Your task to perform on an android device: Show me popular videos on Youtube Image 0: 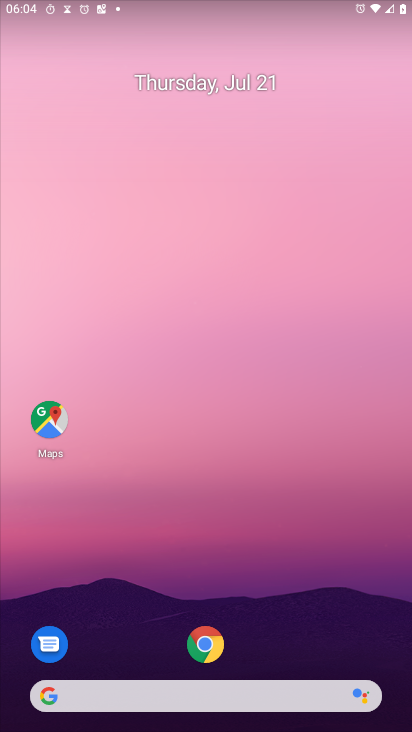
Step 0: press home button
Your task to perform on an android device: Show me popular videos on Youtube Image 1: 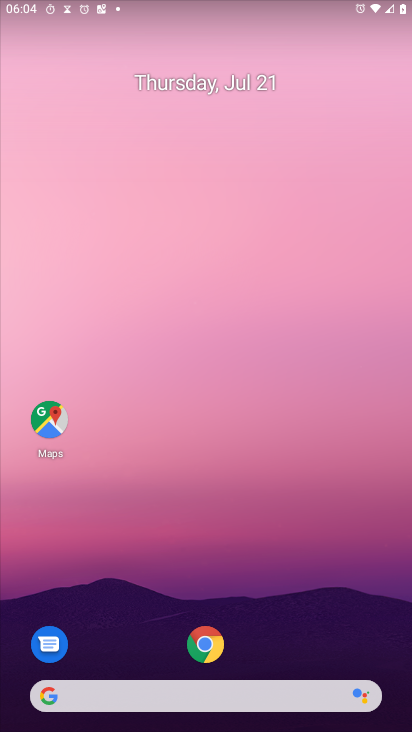
Step 1: drag from (296, 559) to (301, 116)
Your task to perform on an android device: Show me popular videos on Youtube Image 2: 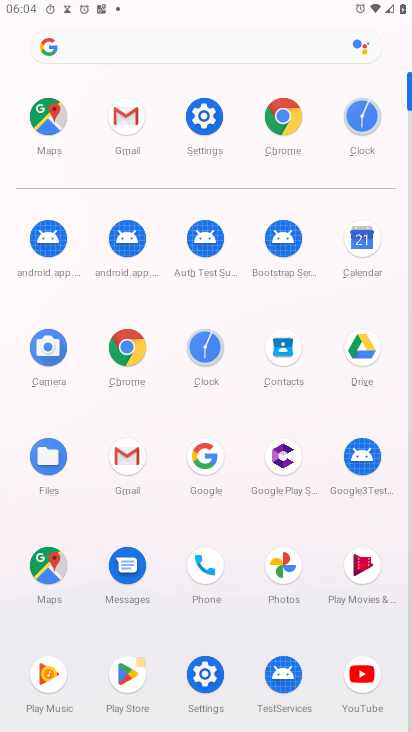
Step 2: click (369, 677)
Your task to perform on an android device: Show me popular videos on Youtube Image 3: 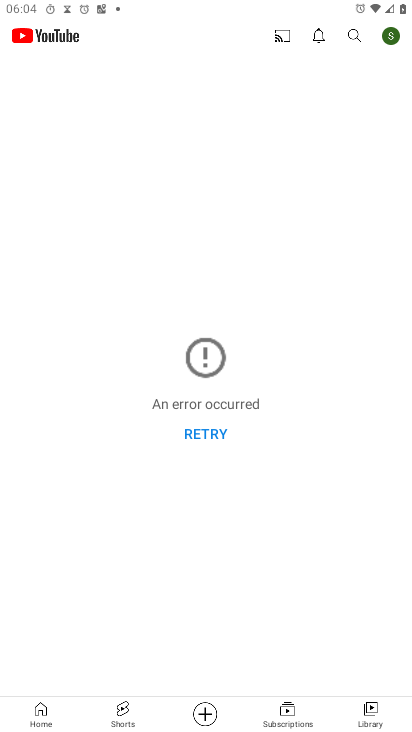
Step 3: click (195, 435)
Your task to perform on an android device: Show me popular videos on Youtube Image 4: 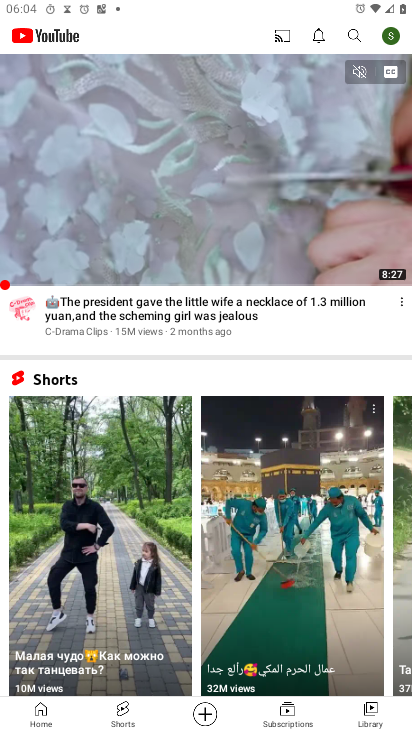
Step 4: drag from (224, 338) to (138, 723)
Your task to perform on an android device: Show me popular videos on Youtube Image 5: 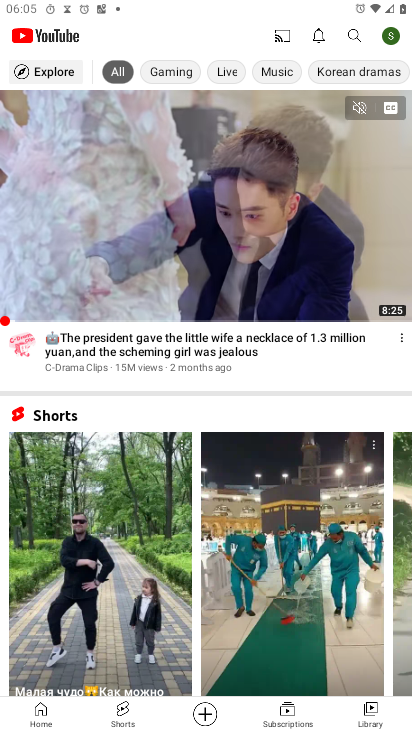
Step 5: click (50, 66)
Your task to perform on an android device: Show me popular videos on Youtube Image 6: 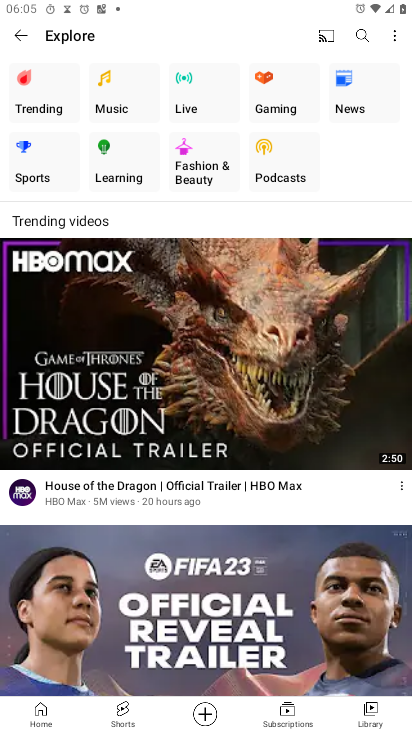
Step 6: click (45, 87)
Your task to perform on an android device: Show me popular videos on Youtube Image 7: 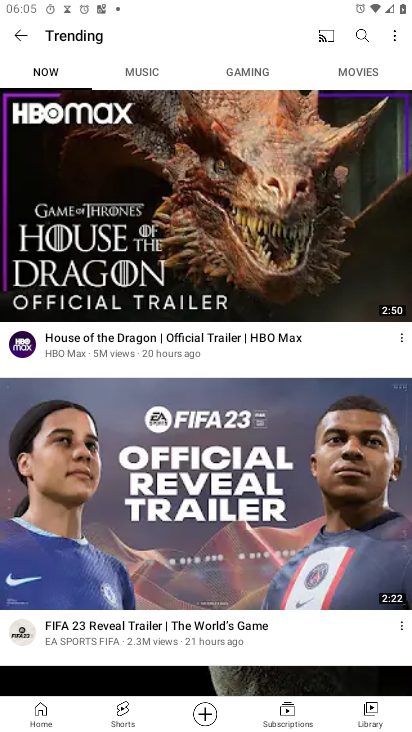
Step 7: task complete